Your task to perform on an android device: snooze an email in the gmail app Image 0: 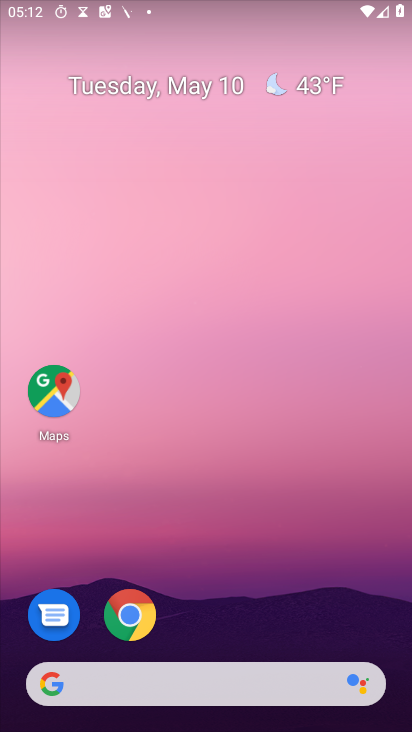
Step 0: drag from (310, 628) to (270, 61)
Your task to perform on an android device: snooze an email in the gmail app Image 1: 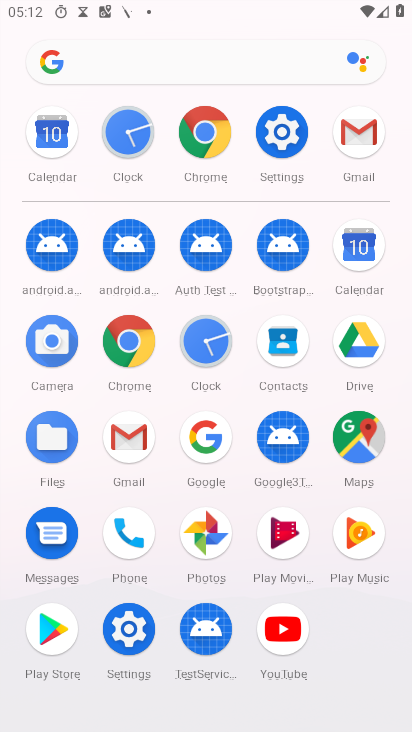
Step 1: click (135, 428)
Your task to perform on an android device: snooze an email in the gmail app Image 2: 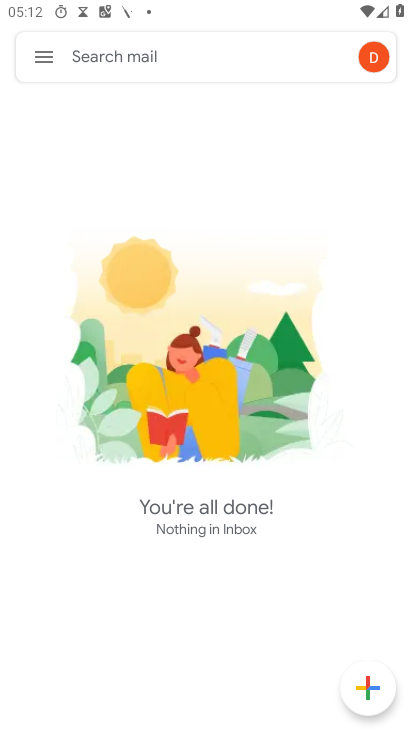
Step 2: click (44, 57)
Your task to perform on an android device: snooze an email in the gmail app Image 3: 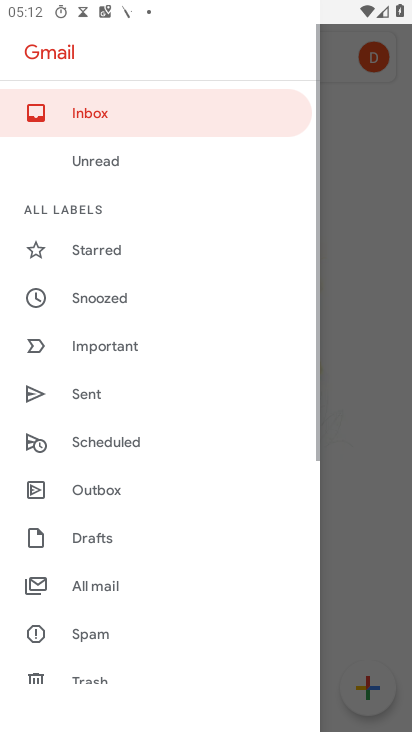
Step 3: click (131, 308)
Your task to perform on an android device: snooze an email in the gmail app Image 4: 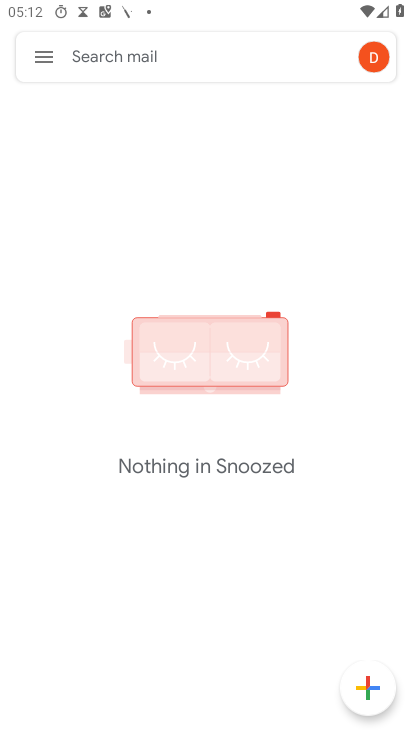
Step 4: task complete